Your task to perform on an android device: turn on wifi Image 0: 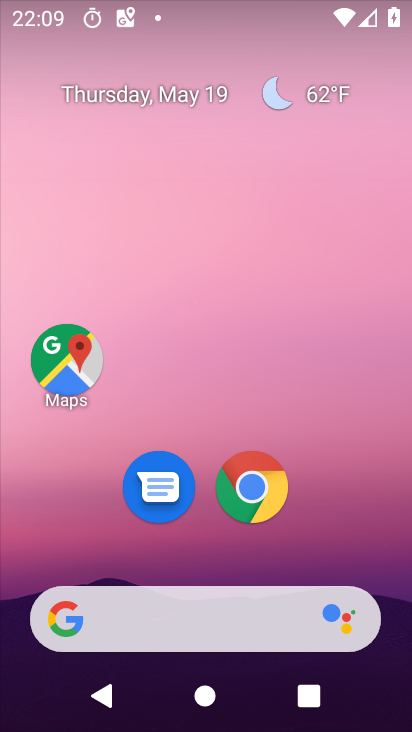
Step 0: drag from (333, 531) to (261, 52)
Your task to perform on an android device: turn on wifi Image 1: 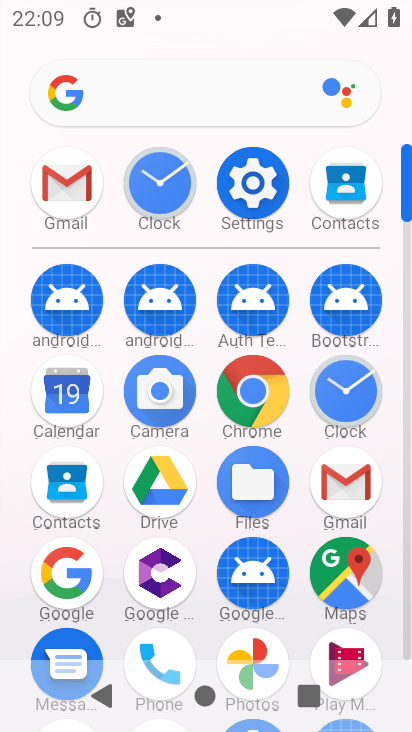
Step 1: click (258, 178)
Your task to perform on an android device: turn on wifi Image 2: 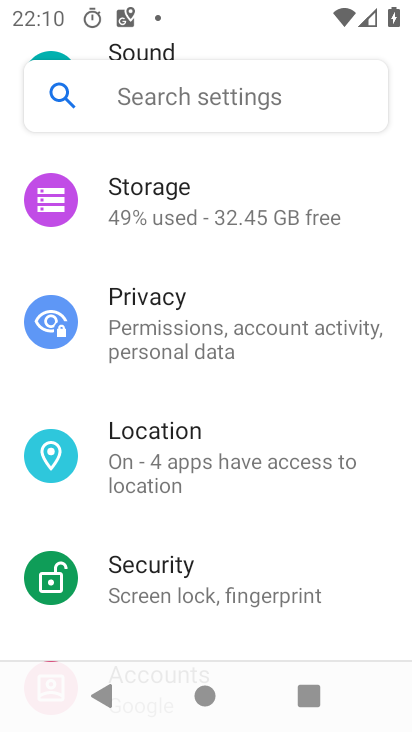
Step 2: drag from (270, 166) to (302, 469)
Your task to perform on an android device: turn on wifi Image 3: 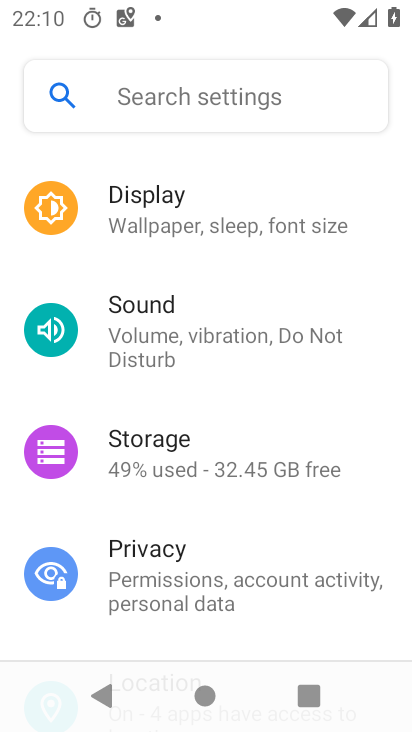
Step 3: drag from (302, 327) to (334, 581)
Your task to perform on an android device: turn on wifi Image 4: 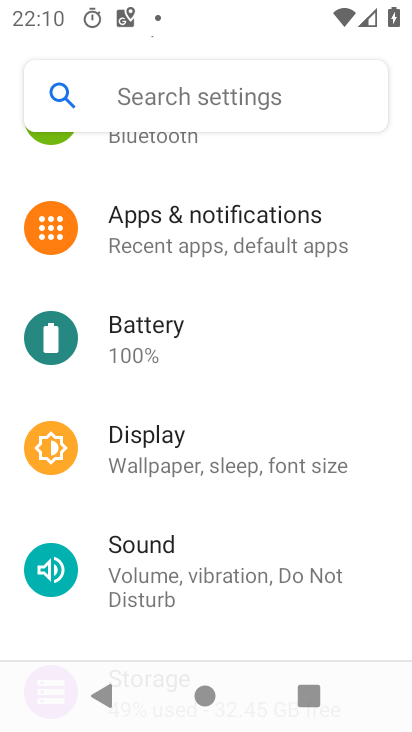
Step 4: drag from (302, 327) to (295, 630)
Your task to perform on an android device: turn on wifi Image 5: 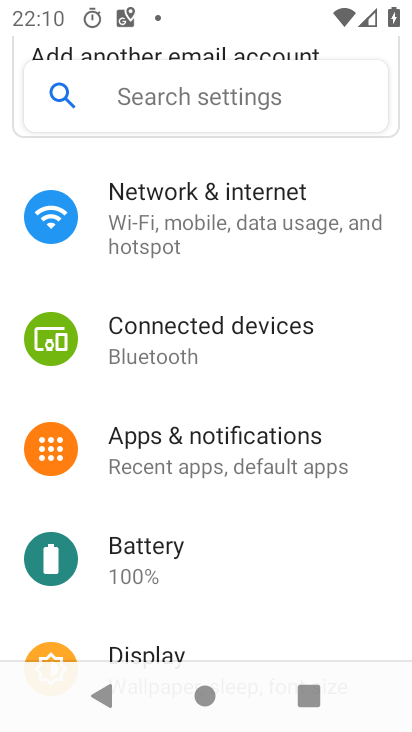
Step 5: click (264, 224)
Your task to perform on an android device: turn on wifi Image 6: 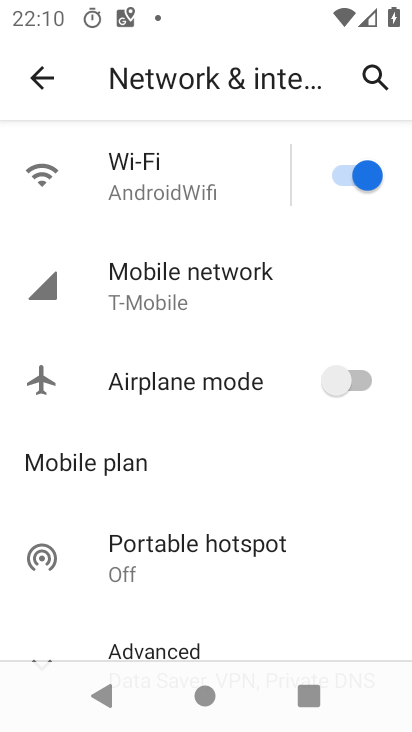
Step 6: task complete